Your task to perform on an android device: star an email in the gmail app Image 0: 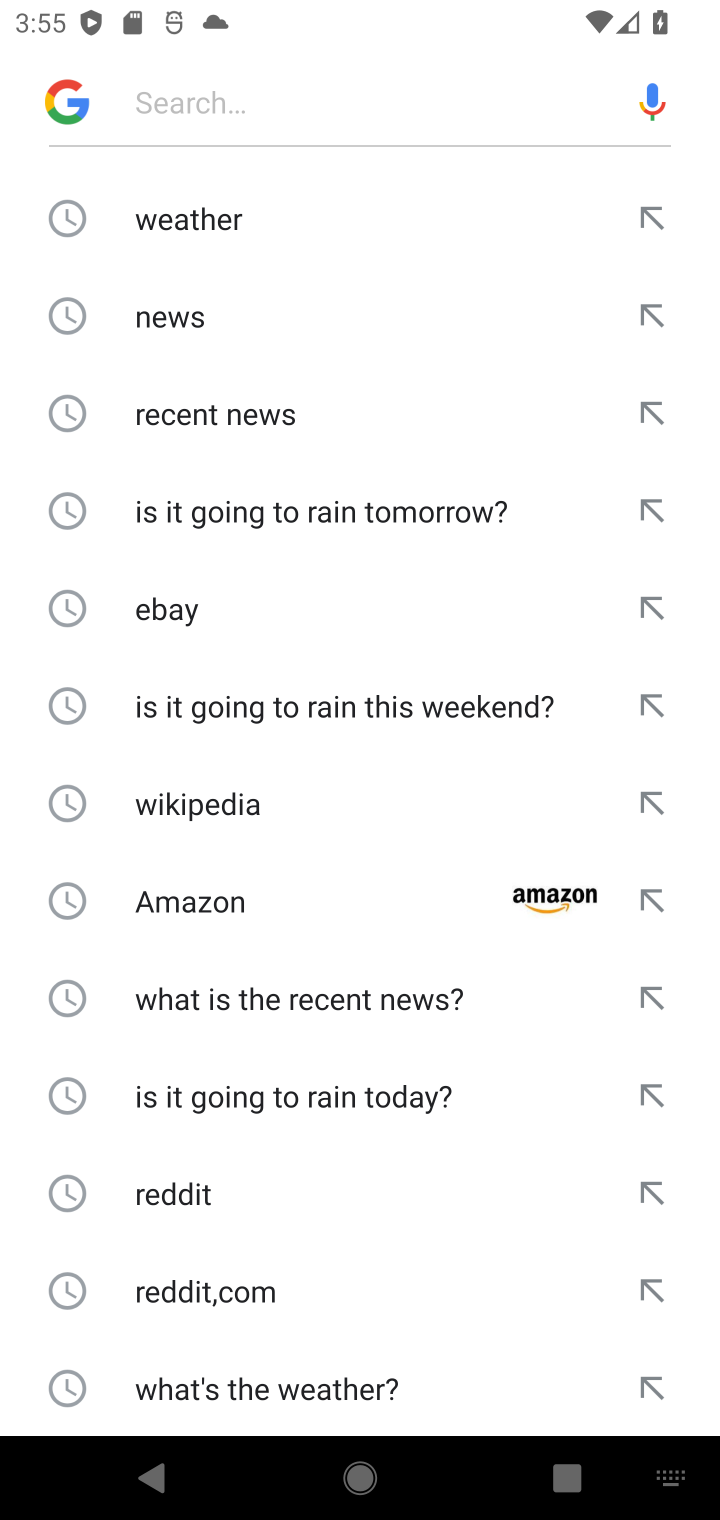
Step 0: press home button
Your task to perform on an android device: star an email in the gmail app Image 1: 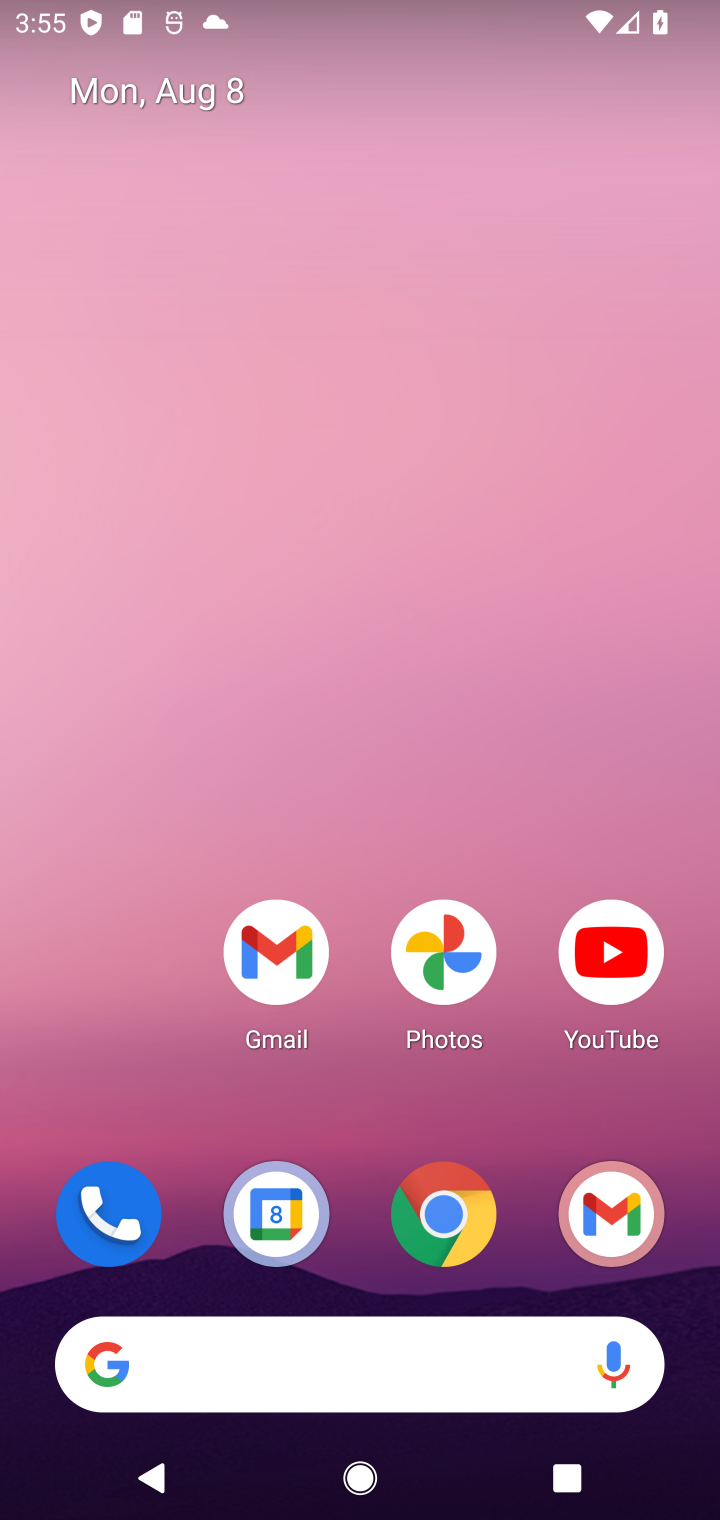
Step 1: drag from (317, 1101) to (312, 293)
Your task to perform on an android device: star an email in the gmail app Image 2: 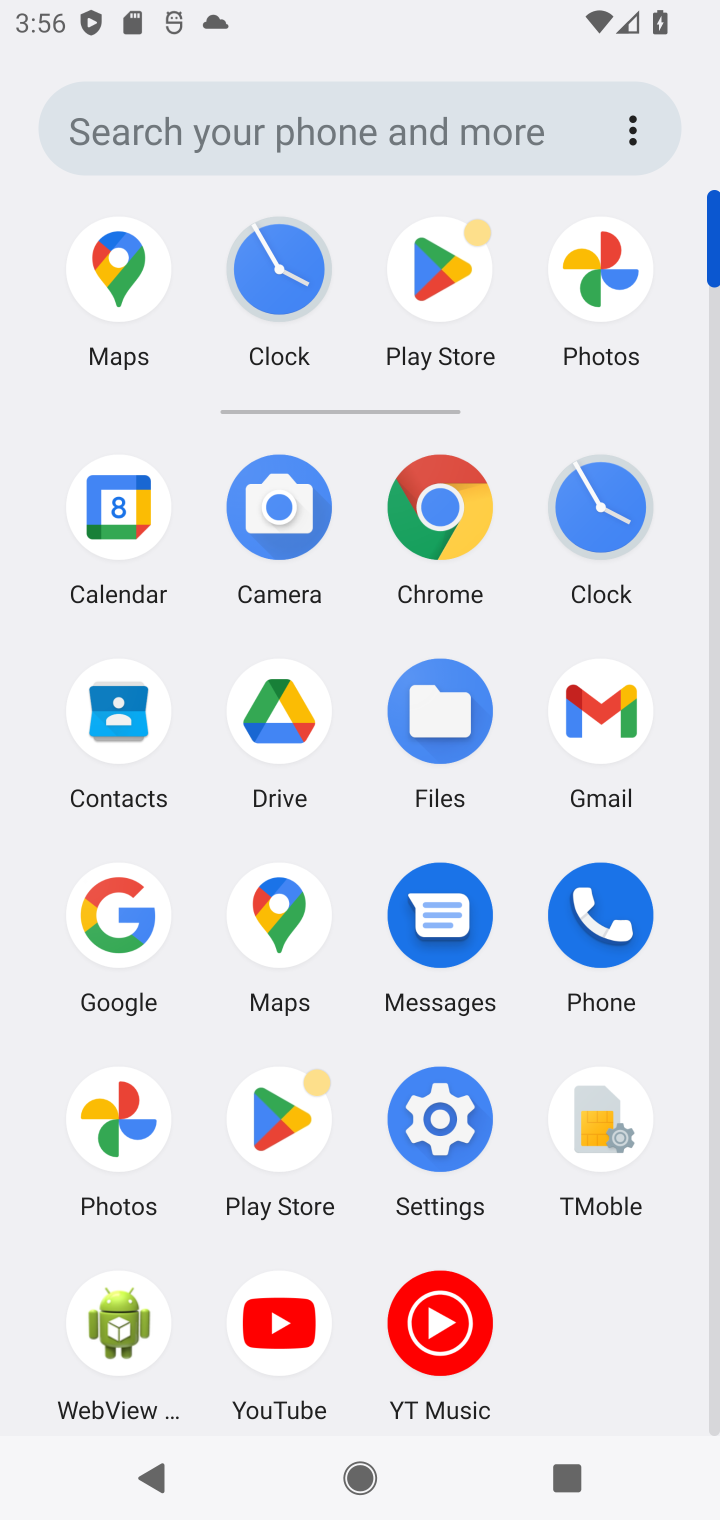
Step 2: click (577, 694)
Your task to perform on an android device: star an email in the gmail app Image 3: 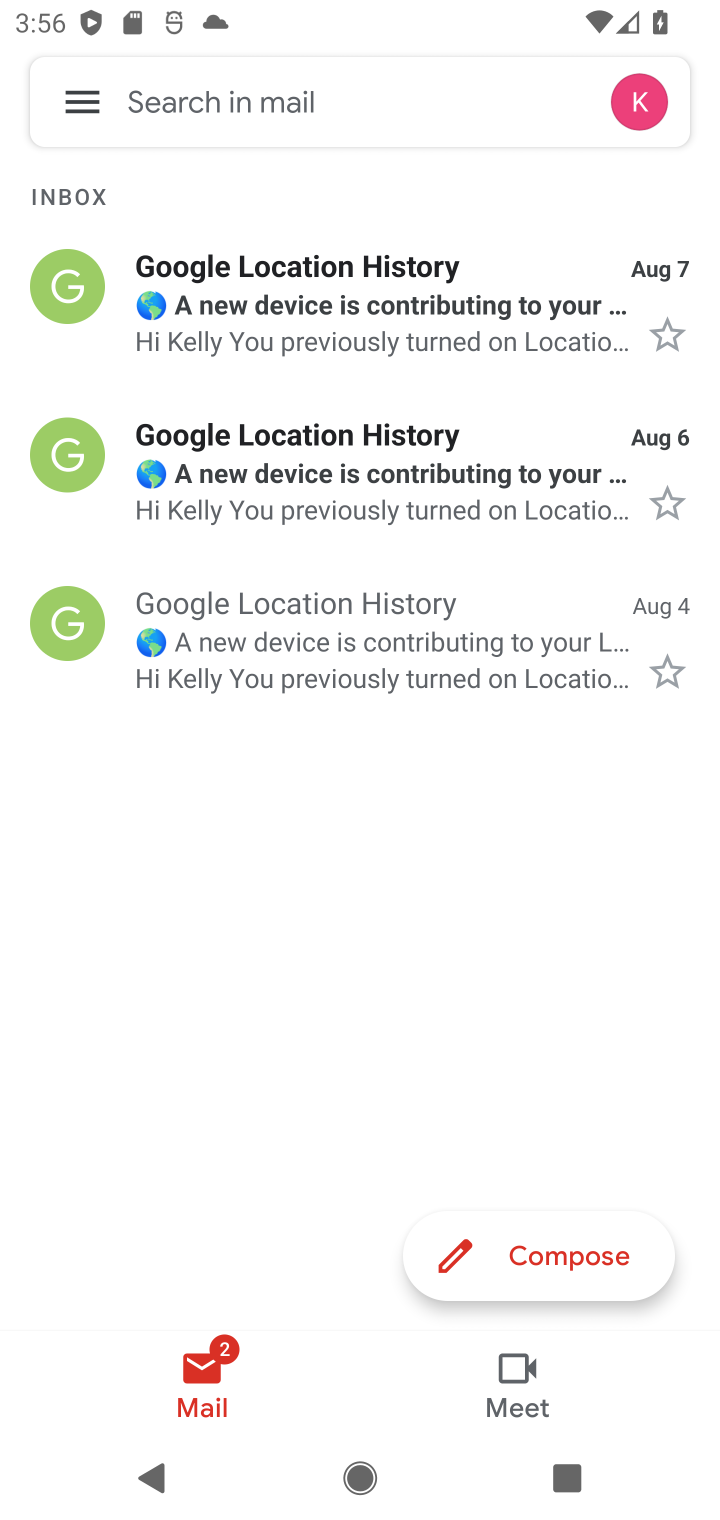
Step 3: click (365, 479)
Your task to perform on an android device: star an email in the gmail app Image 4: 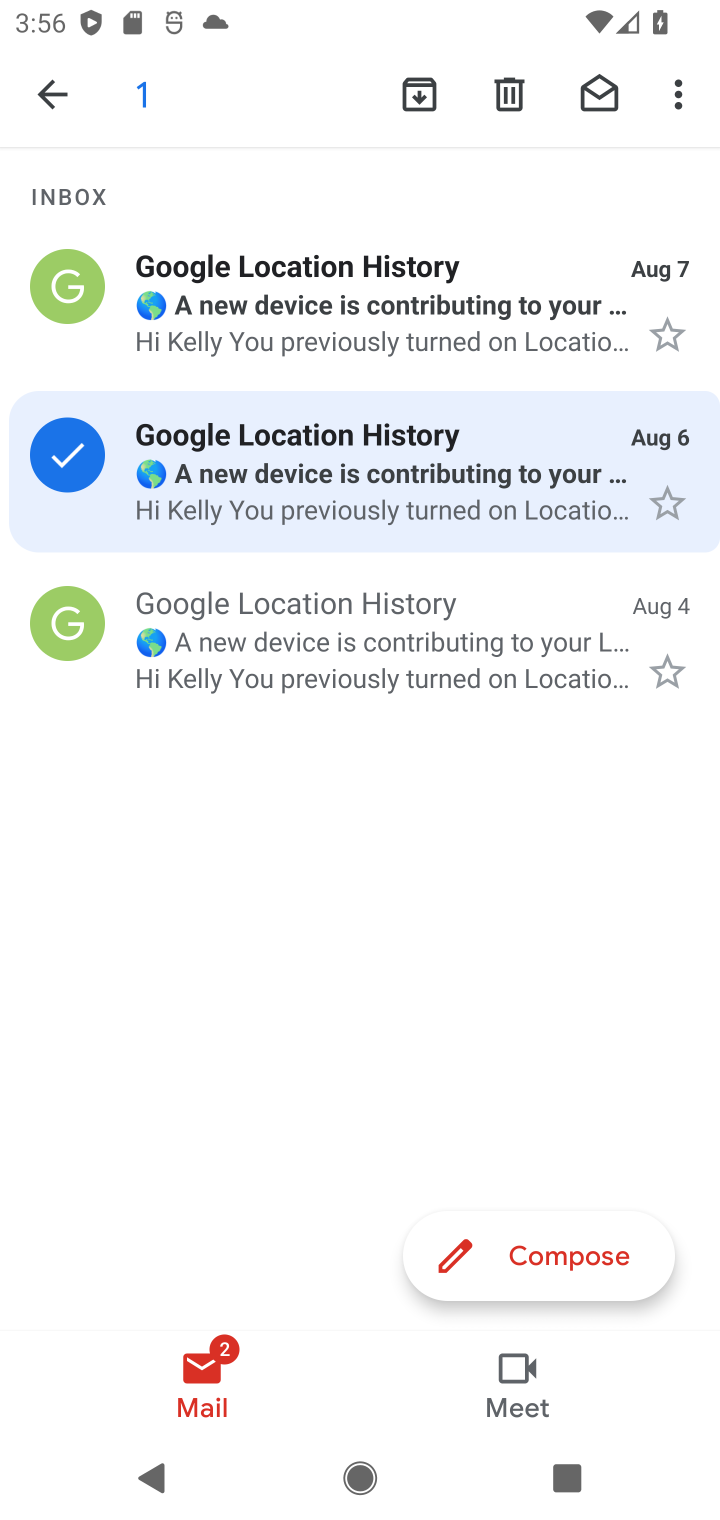
Step 4: click (679, 99)
Your task to perform on an android device: star an email in the gmail app Image 5: 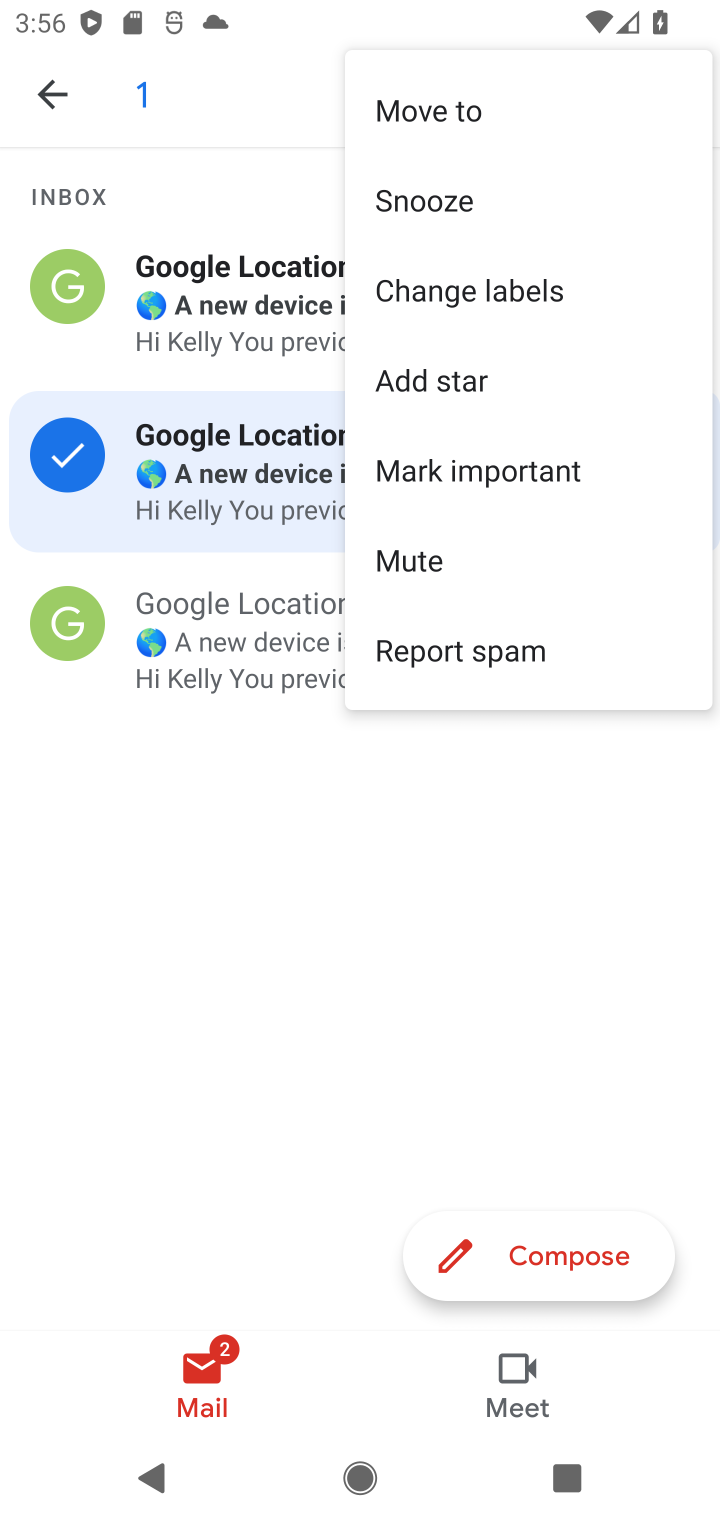
Step 5: click (473, 370)
Your task to perform on an android device: star an email in the gmail app Image 6: 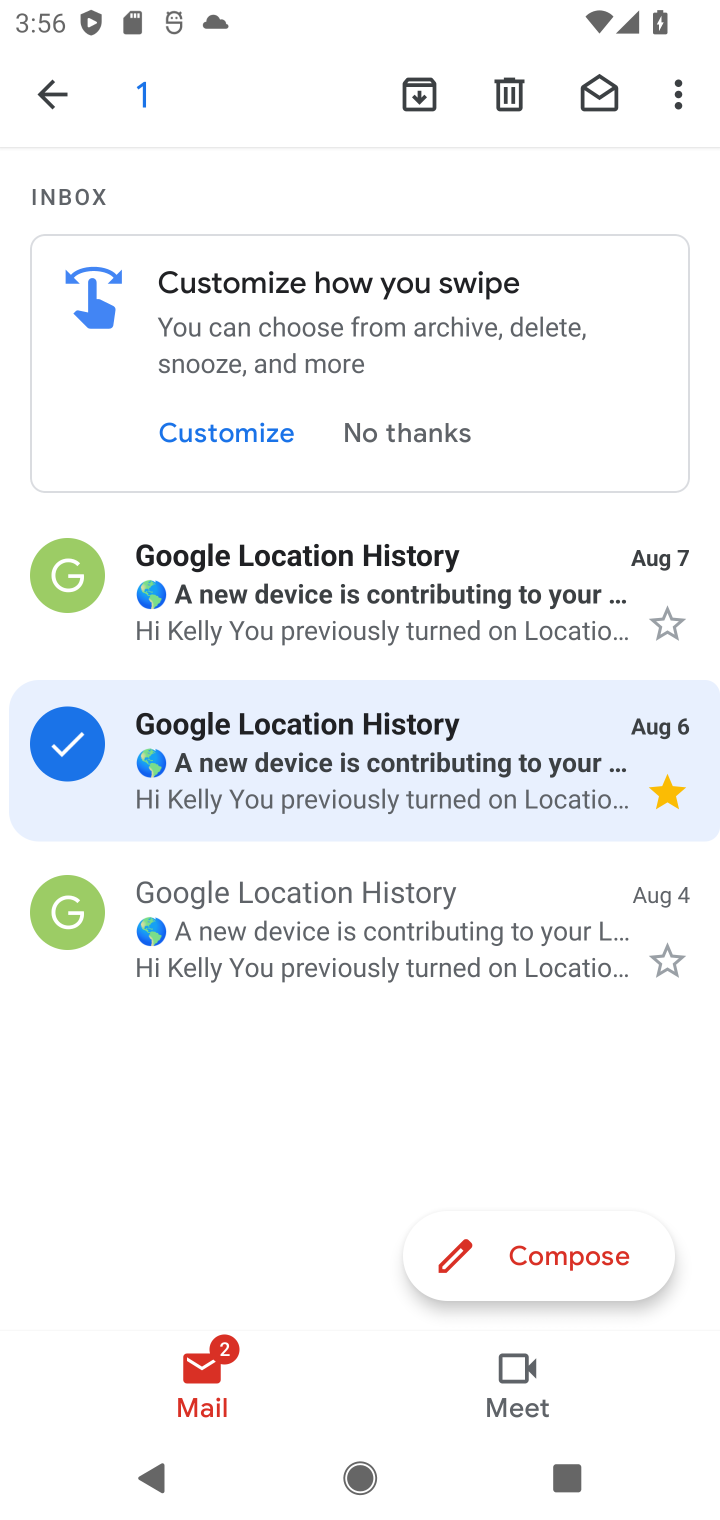
Step 6: task complete